Your task to perform on an android device: set default search engine in the chrome app Image 0: 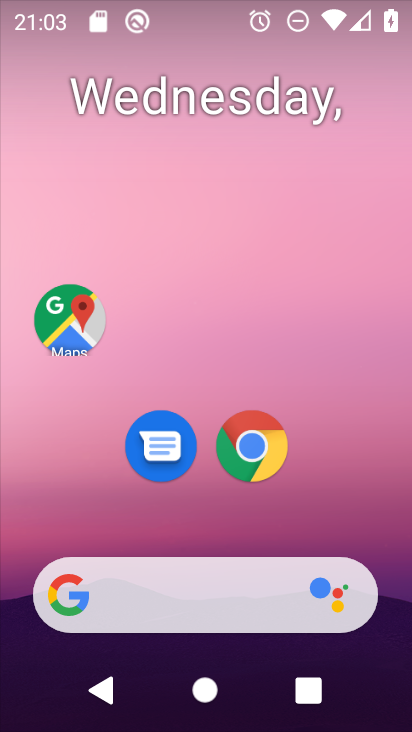
Step 0: click (250, 464)
Your task to perform on an android device: set default search engine in the chrome app Image 1: 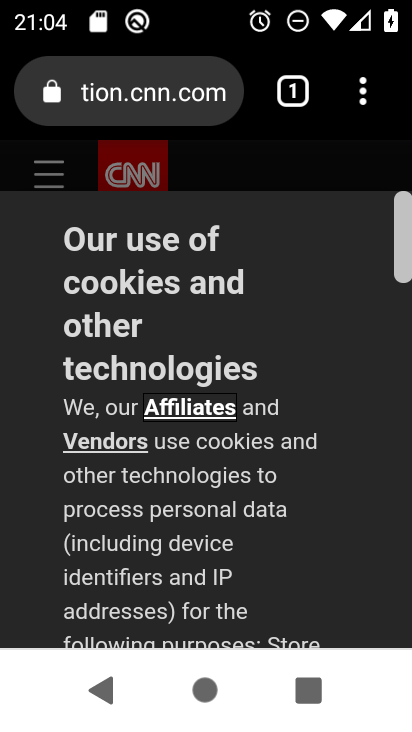
Step 1: drag from (360, 73) to (98, 481)
Your task to perform on an android device: set default search engine in the chrome app Image 2: 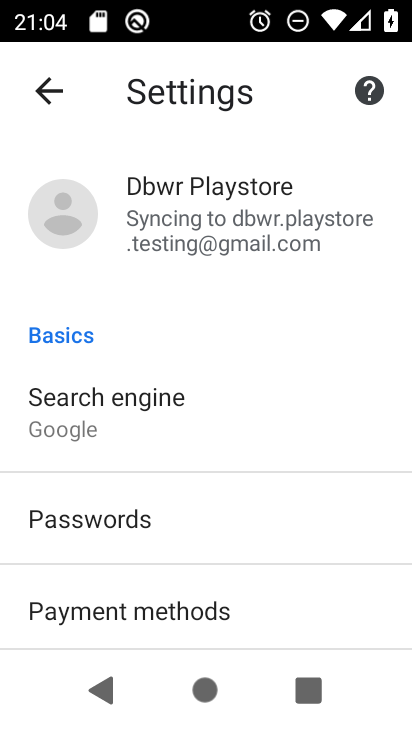
Step 2: click (119, 426)
Your task to perform on an android device: set default search engine in the chrome app Image 3: 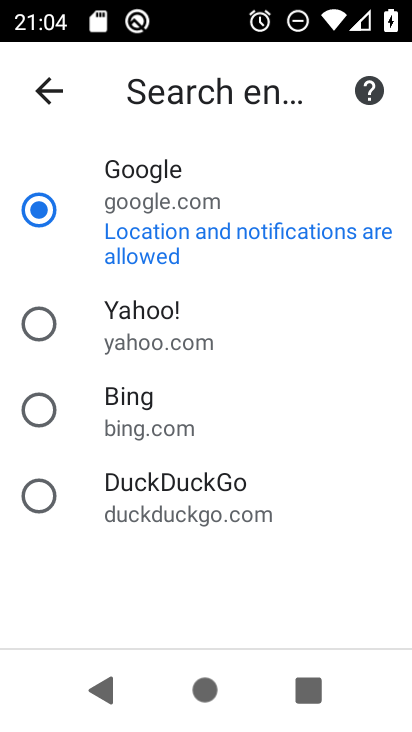
Step 3: click (116, 333)
Your task to perform on an android device: set default search engine in the chrome app Image 4: 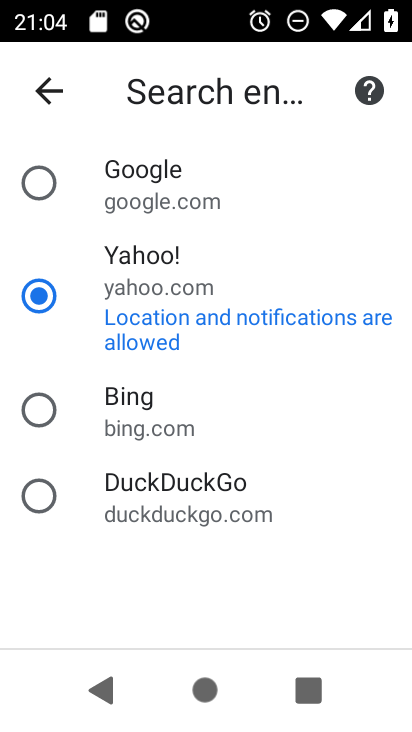
Step 4: task complete